Your task to perform on an android device: Open Google Chrome and open the bookmarks view Image 0: 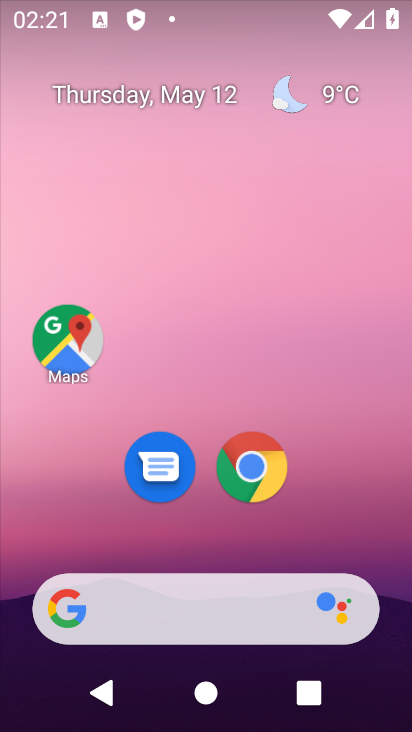
Step 0: drag from (332, 454) to (332, 242)
Your task to perform on an android device: Open Google Chrome and open the bookmarks view Image 1: 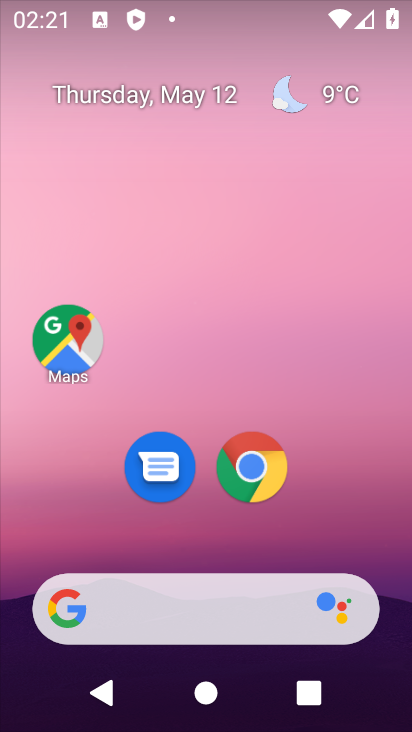
Step 1: drag from (293, 549) to (317, 186)
Your task to perform on an android device: Open Google Chrome and open the bookmarks view Image 2: 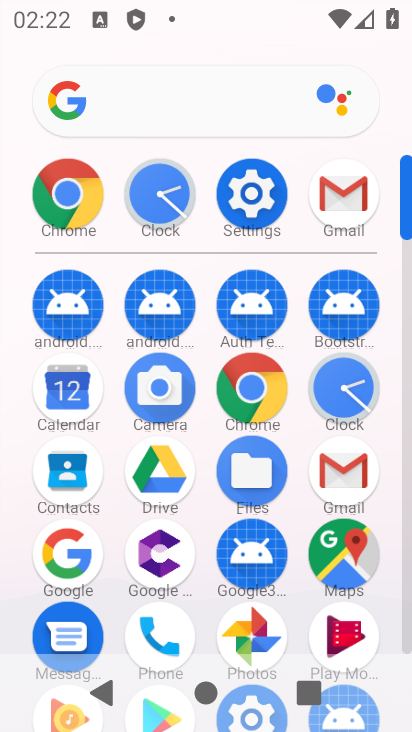
Step 2: click (67, 196)
Your task to perform on an android device: Open Google Chrome and open the bookmarks view Image 3: 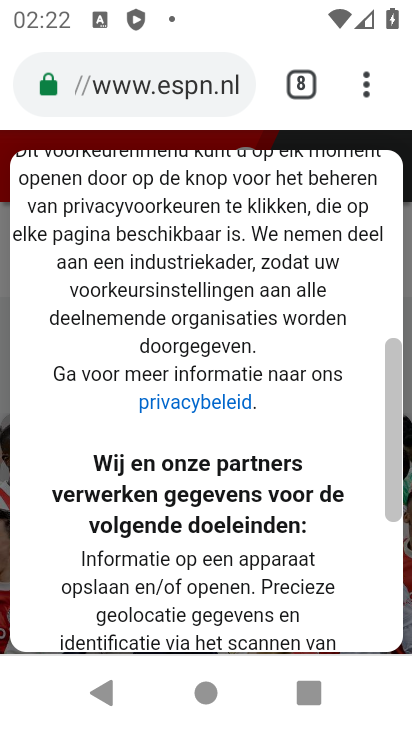
Step 3: click (347, 76)
Your task to perform on an android device: Open Google Chrome and open the bookmarks view Image 4: 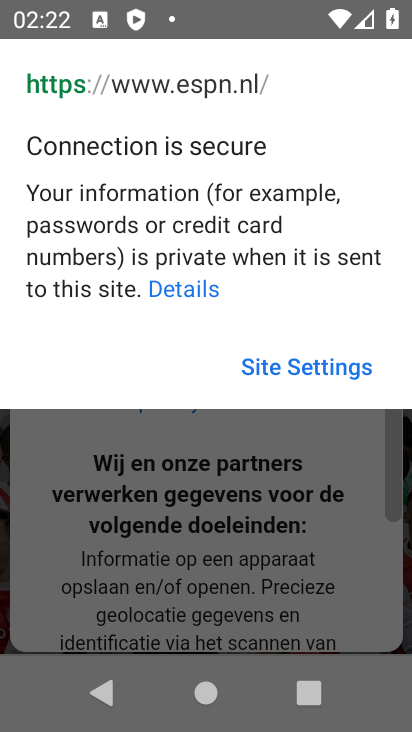
Step 4: press back button
Your task to perform on an android device: Open Google Chrome and open the bookmarks view Image 5: 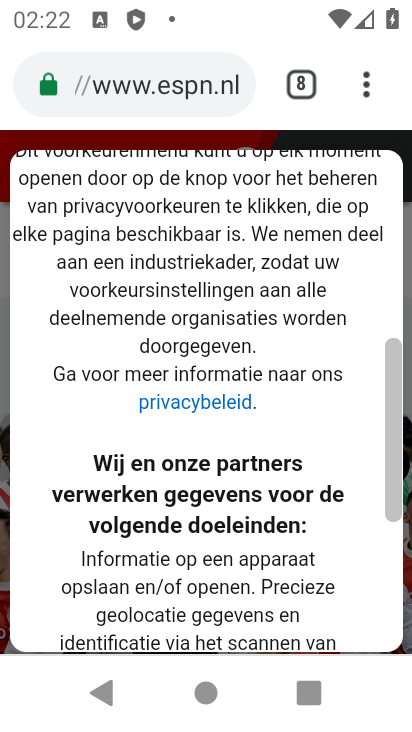
Step 5: click (347, 79)
Your task to perform on an android device: Open Google Chrome and open the bookmarks view Image 6: 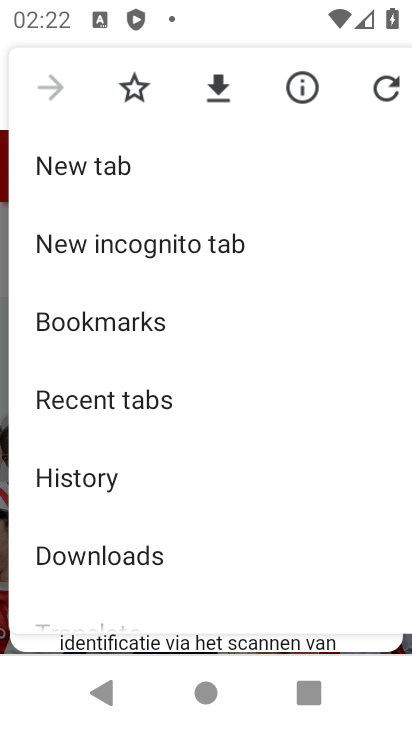
Step 6: click (149, 319)
Your task to perform on an android device: Open Google Chrome and open the bookmarks view Image 7: 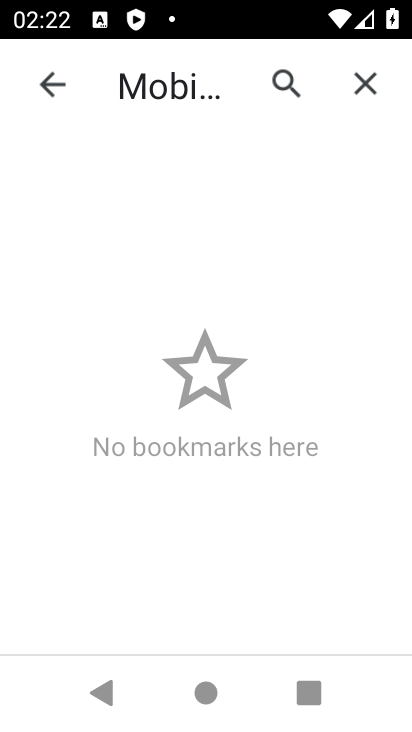
Step 7: task complete